Your task to perform on an android device: all mails in gmail Image 0: 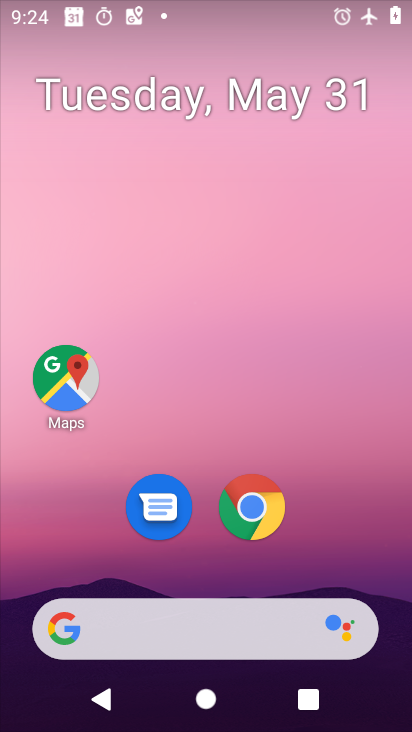
Step 0: drag from (38, 545) to (356, 71)
Your task to perform on an android device: all mails in gmail Image 1: 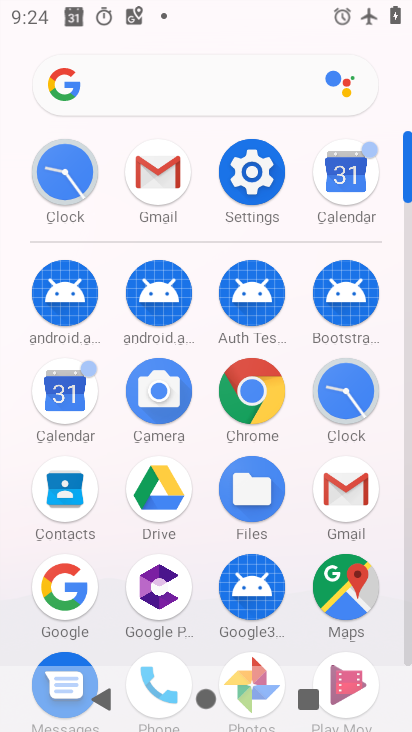
Step 1: click (148, 170)
Your task to perform on an android device: all mails in gmail Image 2: 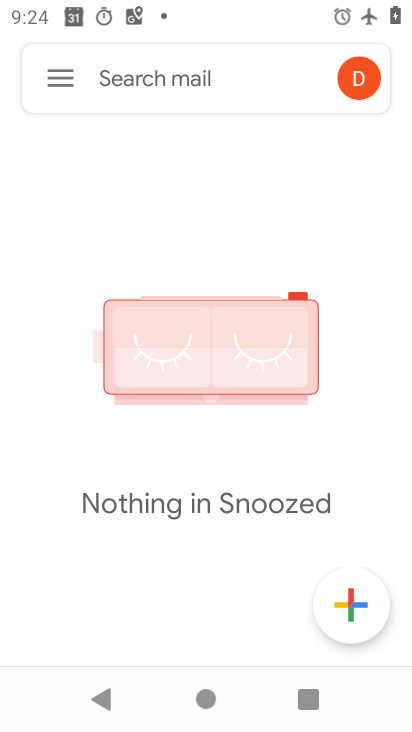
Step 2: click (68, 70)
Your task to perform on an android device: all mails in gmail Image 3: 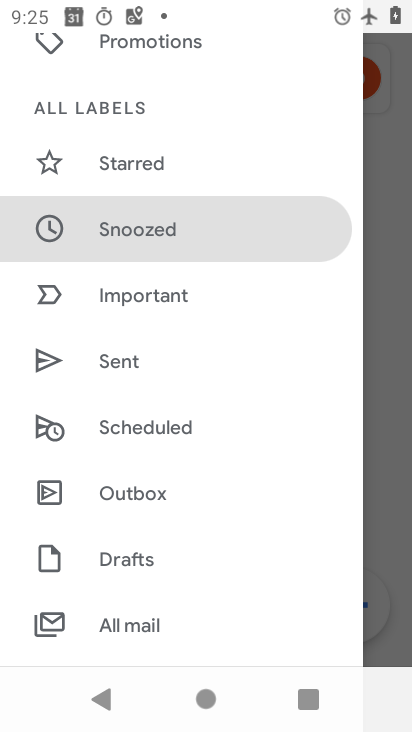
Step 3: click (109, 619)
Your task to perform on an android device: all mails in gmail Image 4: 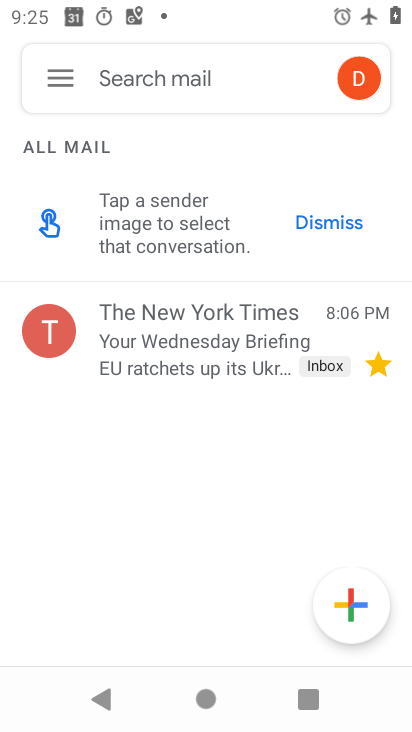
Step 4: task complete